Your task to perform on an android device: Open settings on Google Maps Image 0: 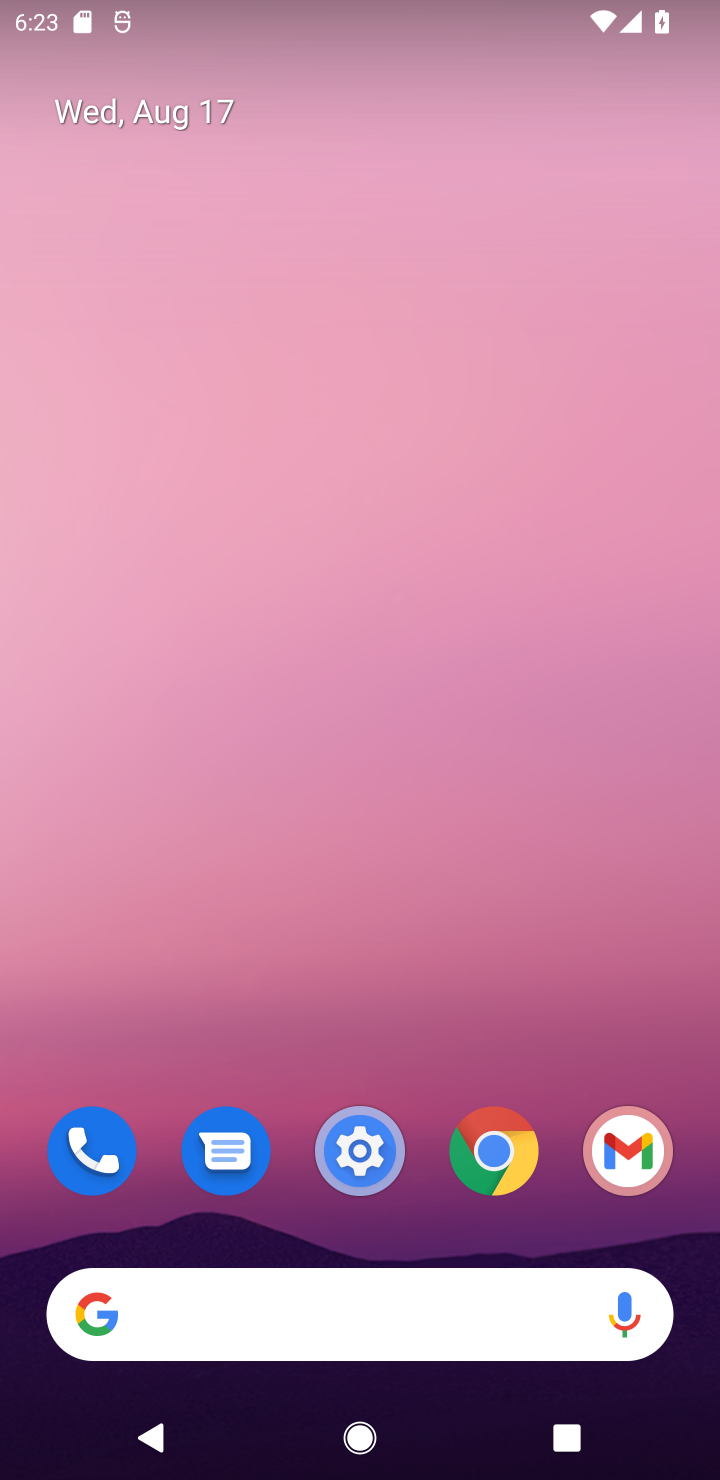
Step 0: drag from (416, 1216) to (426, 69)
Your task to perform on an android device: Open settings on Google Maps Image 1: 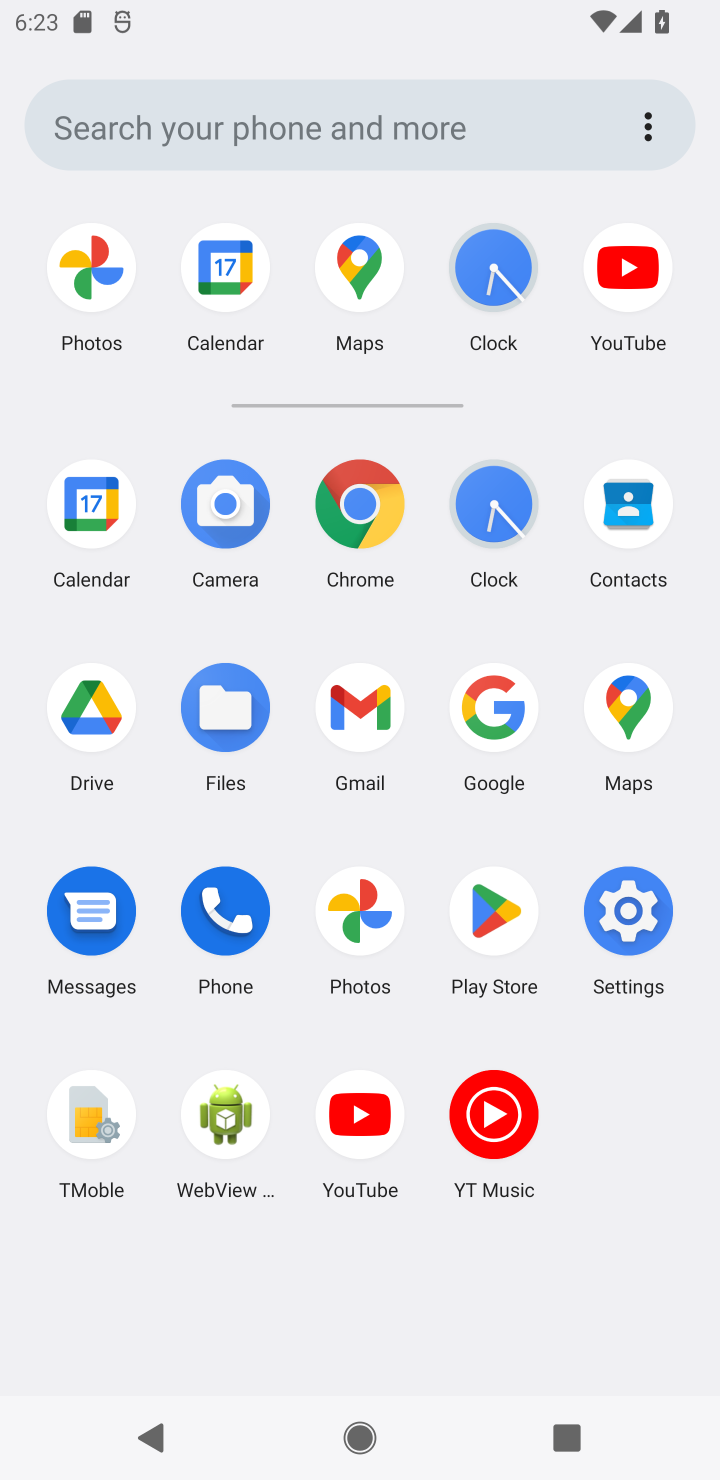
Step 1: click (339, 318)
Your task to perform on an android device: Open settings on Google Maps Image 2: 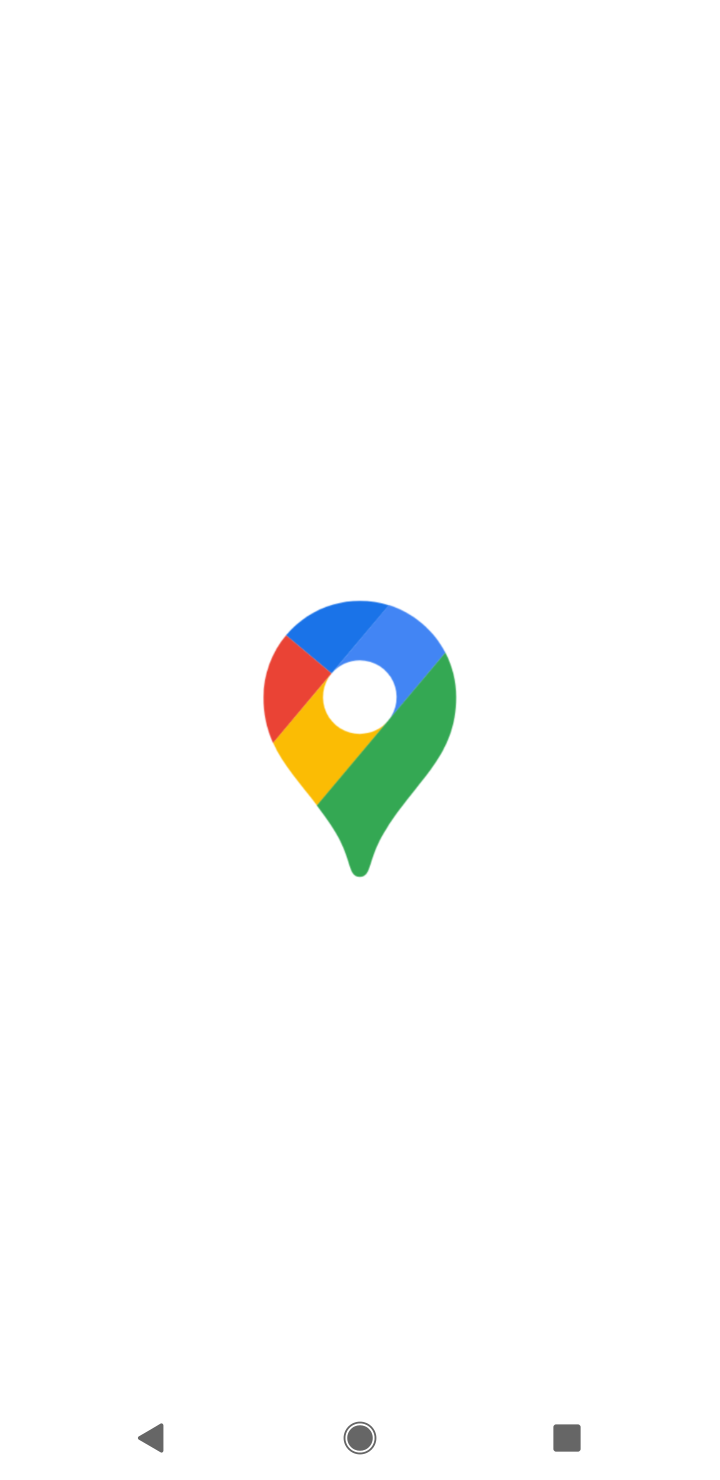
Step 2: task complete